Your task to perform on an android device: Clear the shopping cart on newegg. Add corsair k70 to the cart on newegg, then select checkout. Image 0: 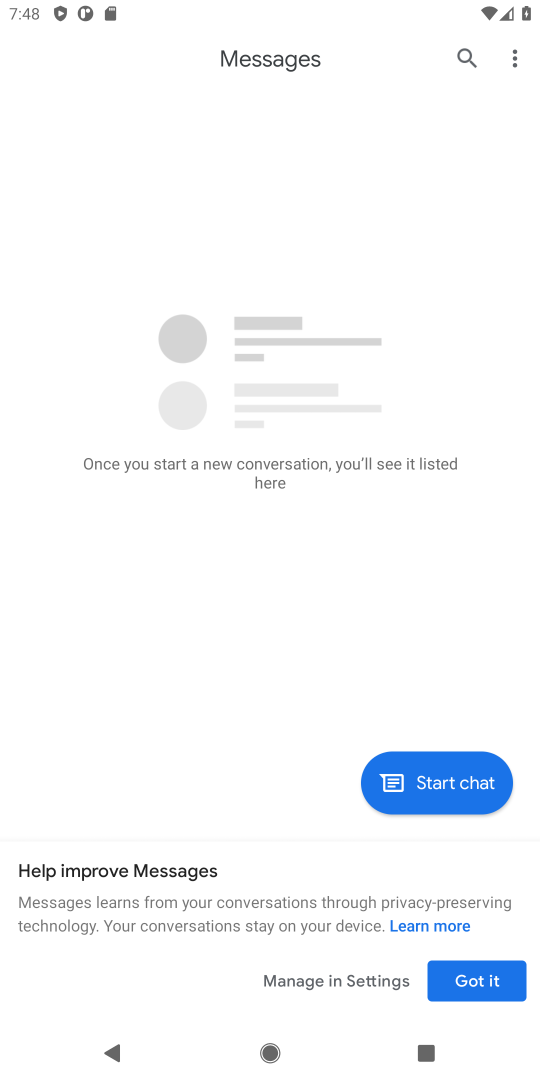
Step 0: press home button
Your task to perform on an android device: Clear the shopping cart on newegg. Add corsair k70 to the cart on newegg, then select checkout. Image 1: 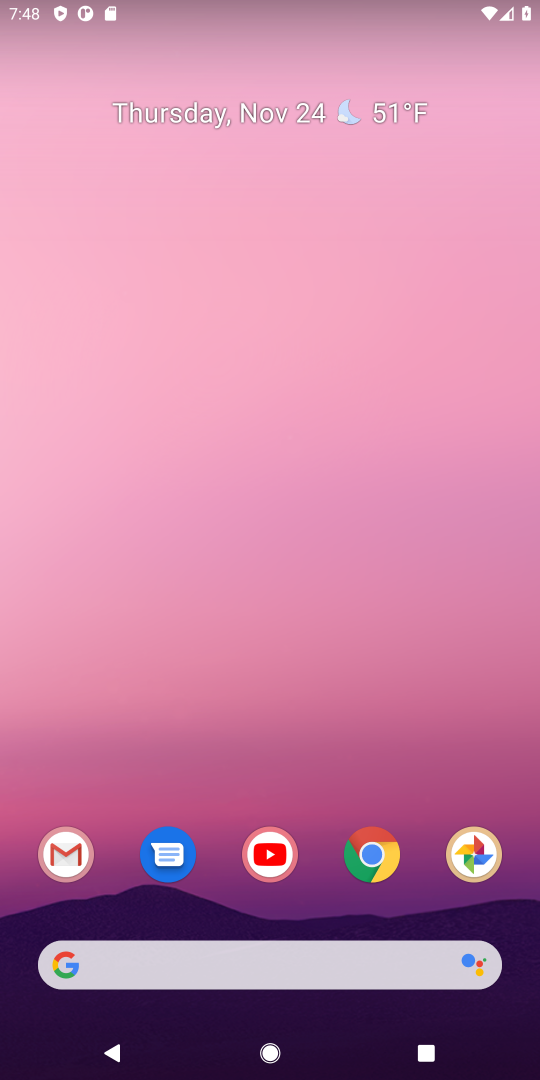
Step 1: click (364, 856)
Your task to perform on an android device: Clear the shopping cart on newegg. Add corsair k70 to the cart on newegg, then select checkout. Image 2: 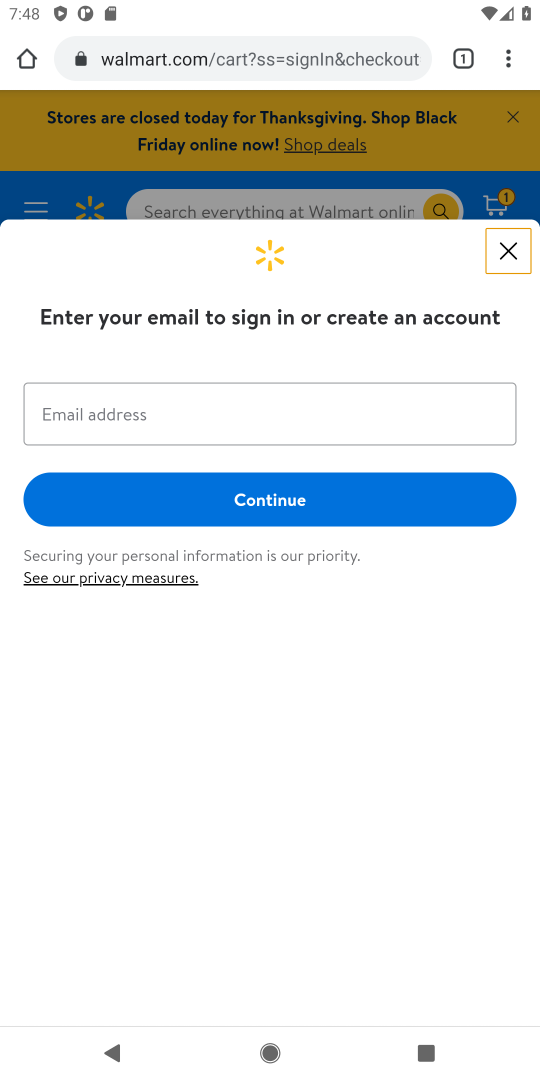
Step 2: click (189, 64)
Your task to perform on an android device: Clear the shopping cart on newegg. Add corsair k70 to the cart on newegg, then select checkout. Image 3: 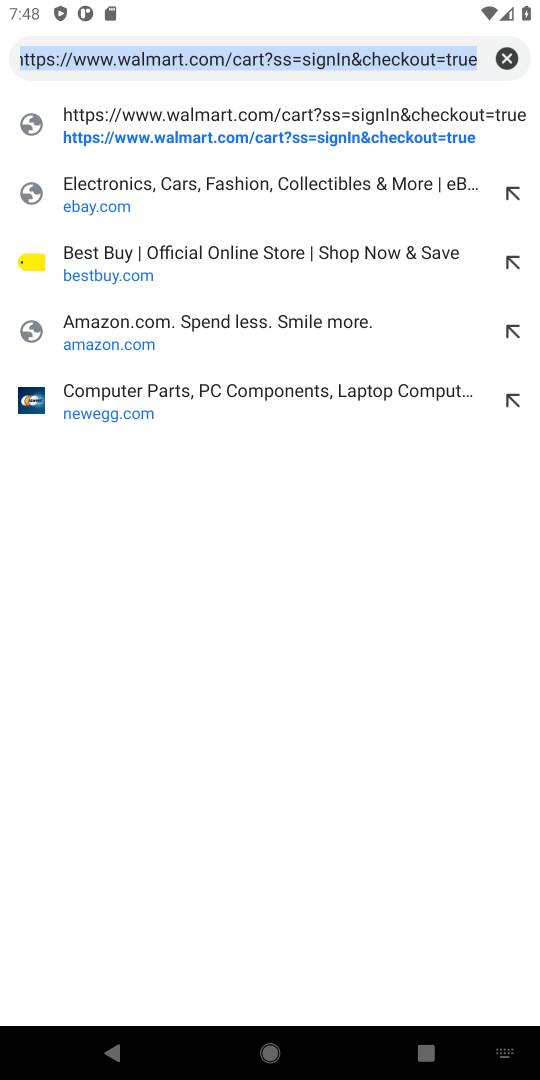
Step 3: click (84, 401)
Your task to perform on an android device: Clear the shopping cart on newegg. Add corsair k70 to the cart on newegg, then select checkout. Image 4: 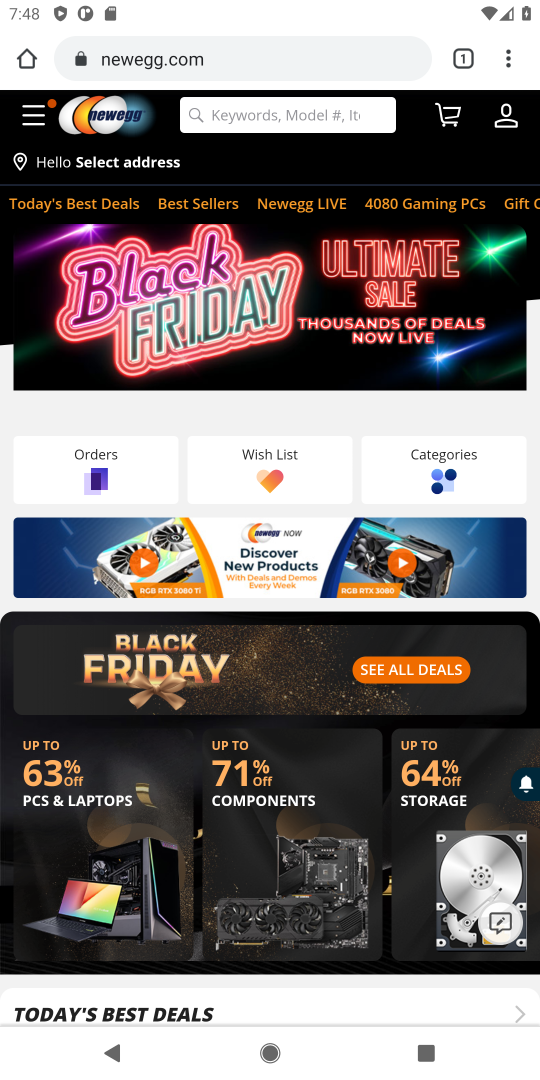
Step 4: click (447, 123)
Your task to perform on an android device: Clear the shopping cart on newegg. Add corsair k70 to the cart on newegg, then select checkout. Image 5: 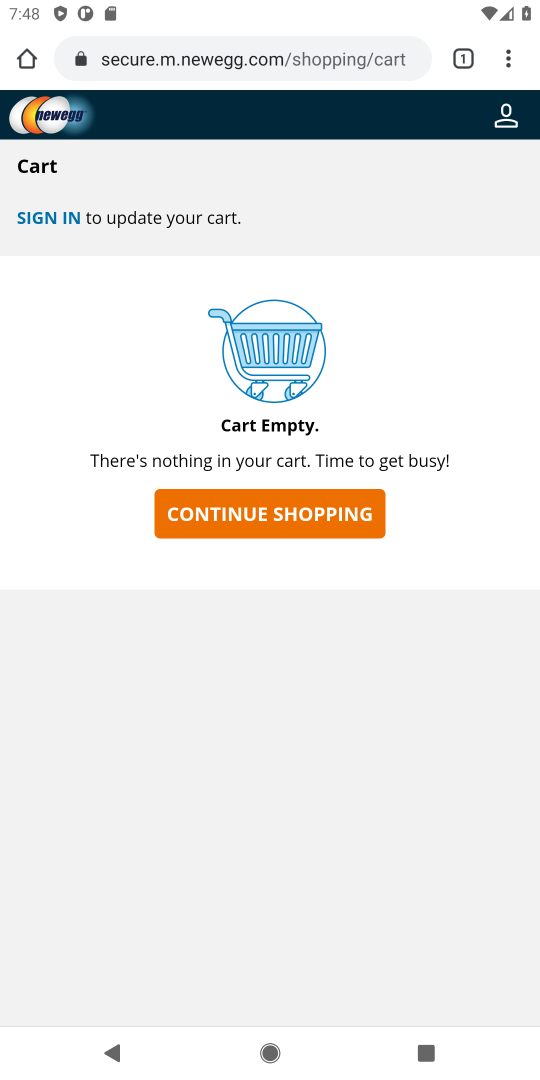
Step 5: click (239, 519)
Your task to perform on an android device: Clear the shopping cart on newegg. Add corsair k70 to the cart on newegg, then select checkout. Image 6: 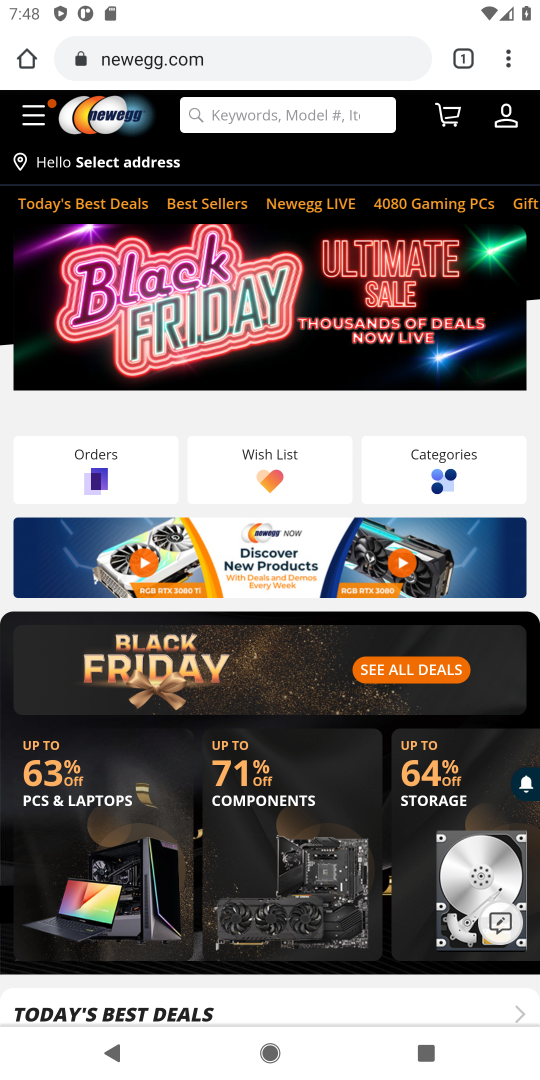
Step 6: click (243, 121)
Your task to perform on an android device: Clear the shopping cart on newegg. Add corsair k70 to the cart on newegg, then select checkout. Image 7: 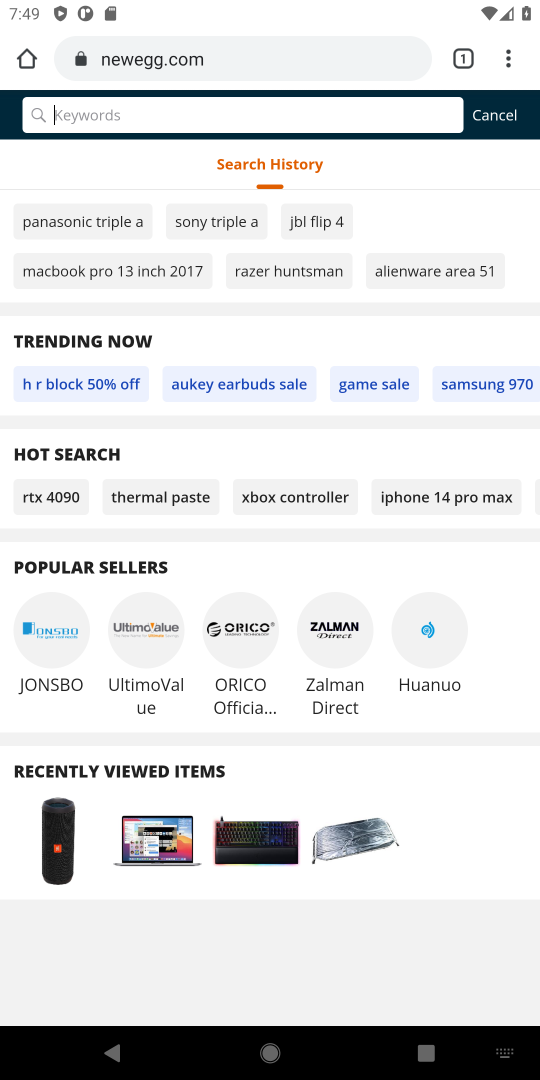
Step 7: type "corsair k70"
Your task to perform on an android device: Clear the shopping cart on newegg. Add corsair k70 to the cart on newegg, then select checkout. Image 8: 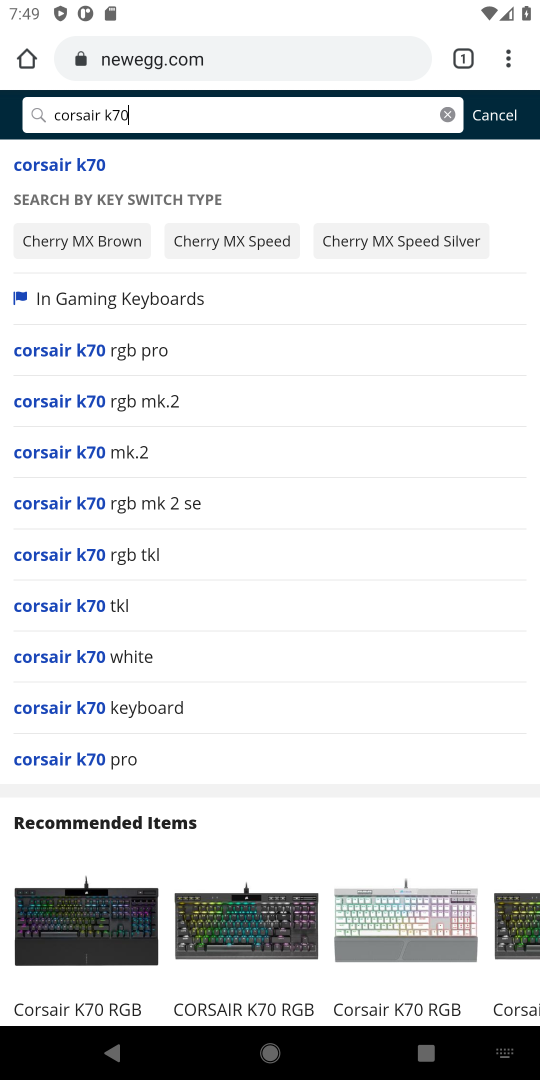
Step 8: click (49, 174)
Your task to perform on an android device: Clear the shopping cart on newegg. Add corsair k70 to the cart on newegg, then select checkout. Image 9: 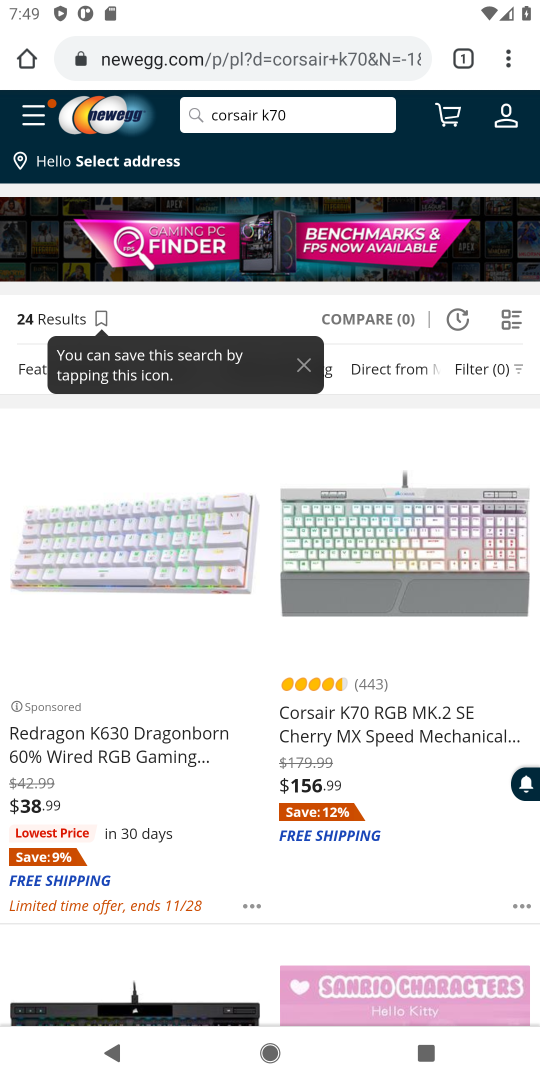
Step 9: click (415, 687)
Your task to perform on an android device: Clear the shopping cart on newegg. Add corsair k70 to the cart on newegg, then select checkout. Image 10: 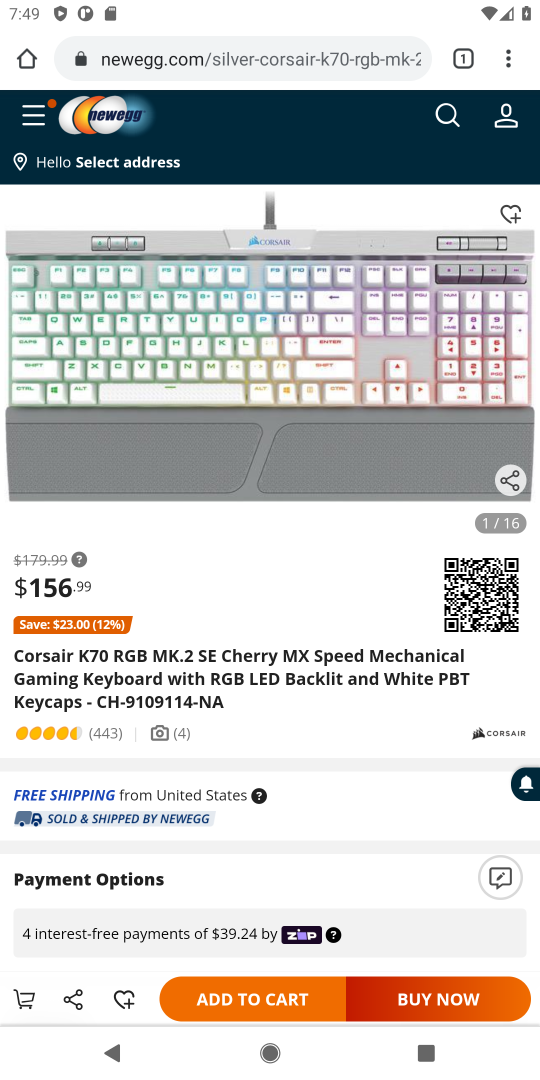
Step 10: click (242, 1005)
Your task to perform on an android device: Clear the shopping cart on newegg. Add corsair k70 to the cart on newegg, then select checkout. Image 11: 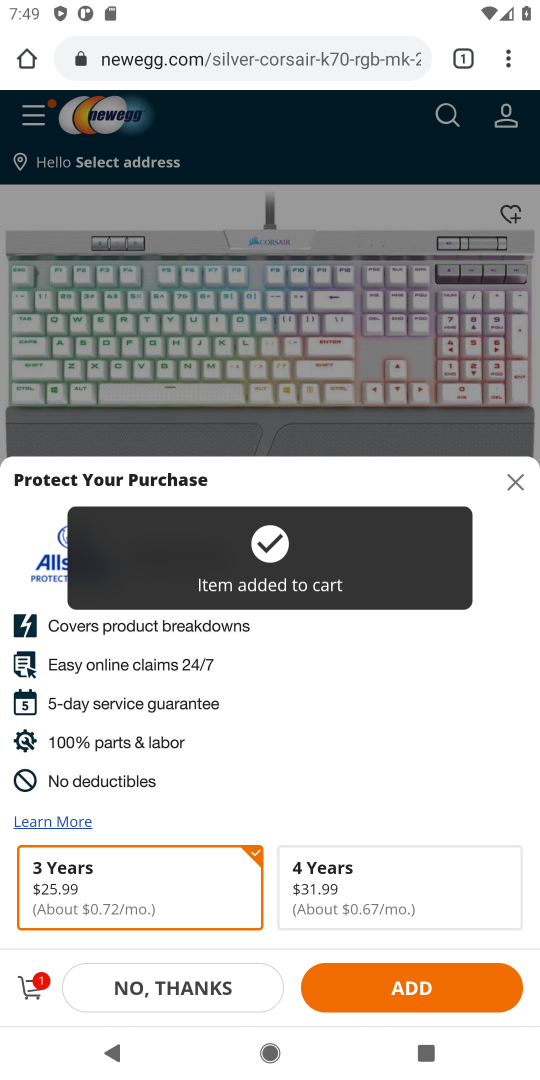
Step 11: click (27, 987)
Your task to perform on an android device: Clear the shopping cart on newegg. Add corsair k70 to the cart on newegg, then select checkout. Image 12: 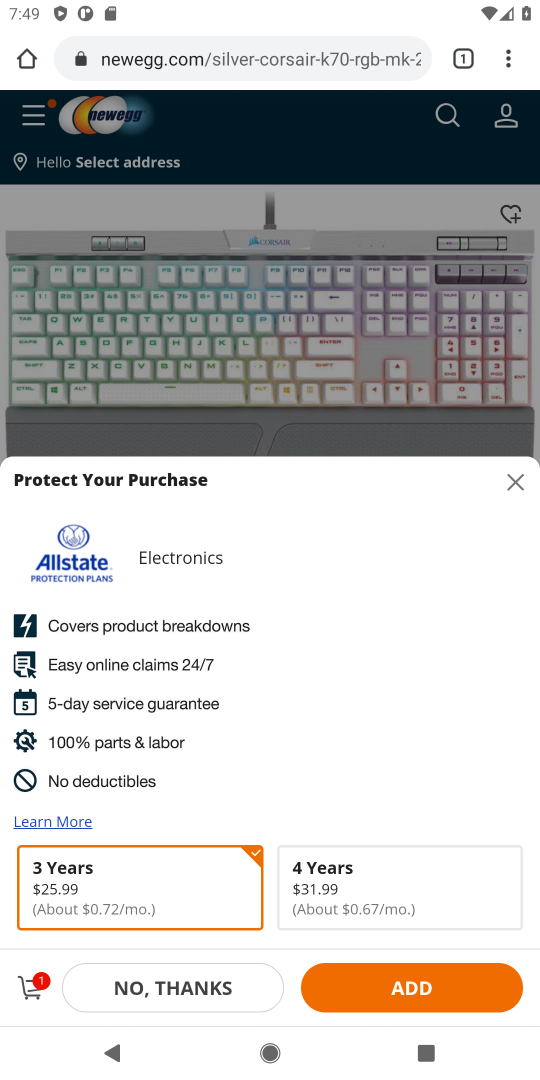
Step 12: click (33, 988)
Your task to perform on an android device: Clear the shopping cart on newegg. Add corsair k70 to the cart on newegg, then select checkout. Image 13: 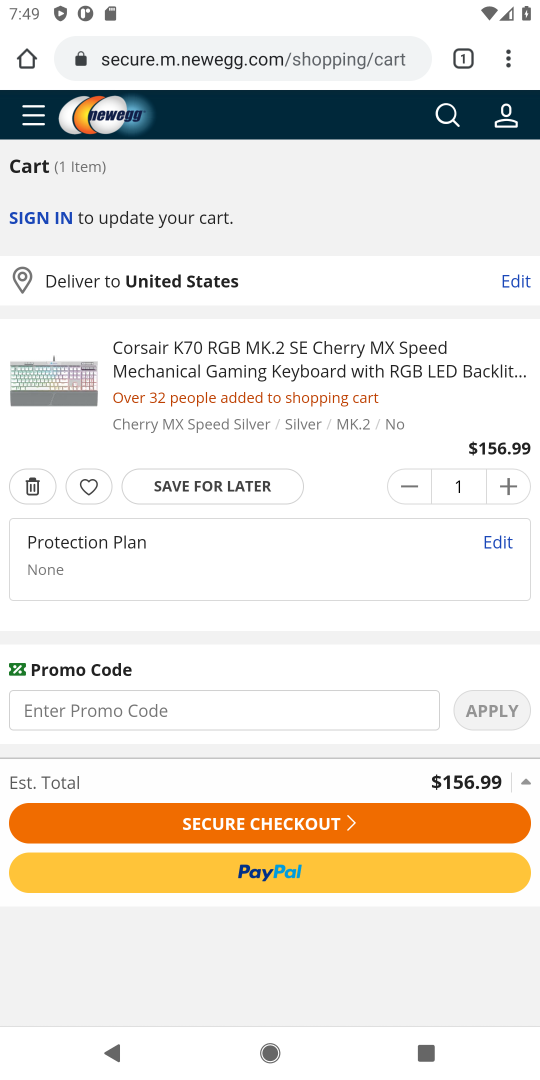
Step 13: click (234, 829)
Your task to perform on an android device: Clear the shopping cart on newegg. Add corsair k70 to the cart on newegg, then select checkout. Image 14: 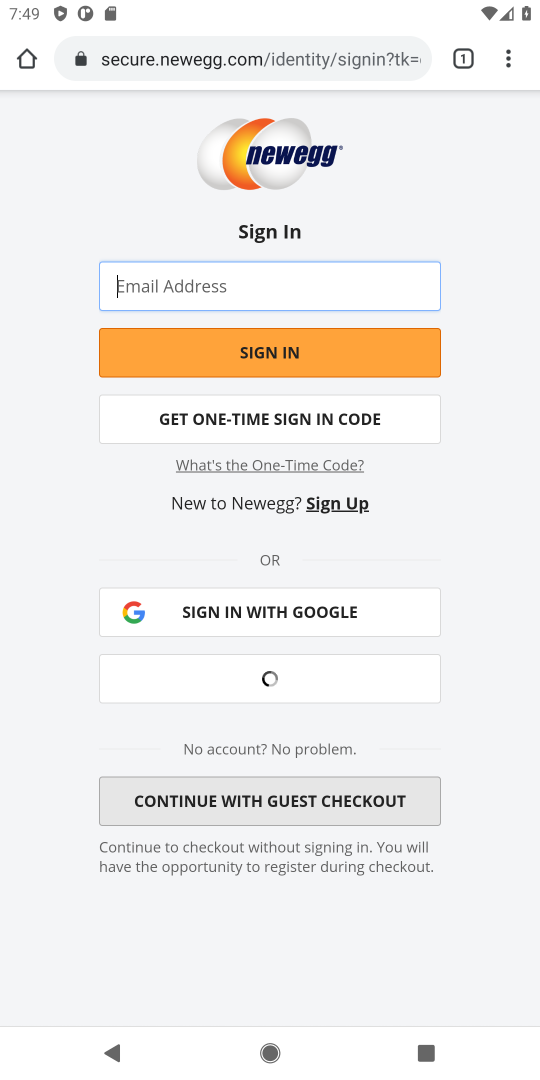
Step 14: task complete